Your task to perform on an android device: Open display settings Image 0: 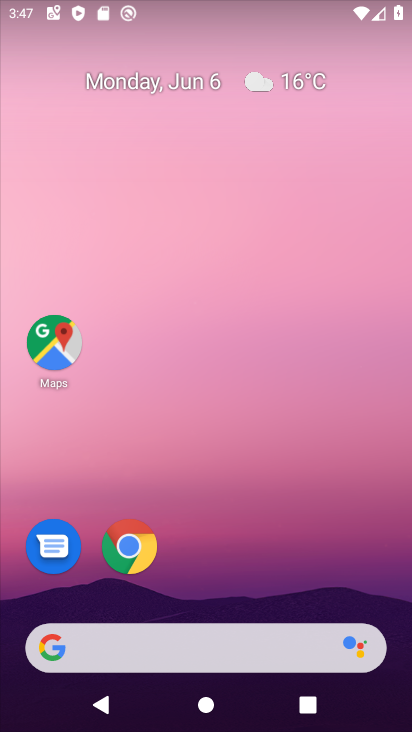
Step 0: drag from (285, 549) to (385, 52)
Your task to perform on an android device: Open display settings Image 1: 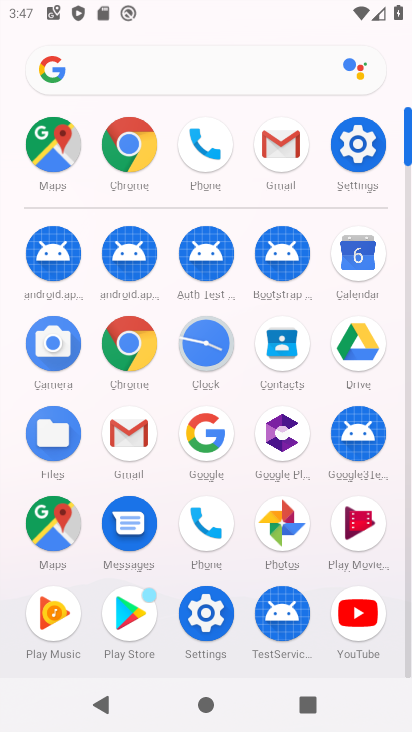
Step 1: click (350, 149)
Your task to perform on an android device: Open display settings Image 2: 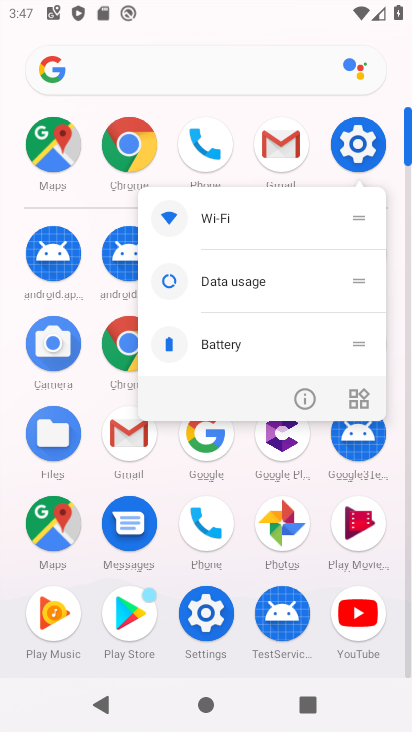
Step 2: click (351, 149)
Your task to perform on an android device: Open display settings Image 3: 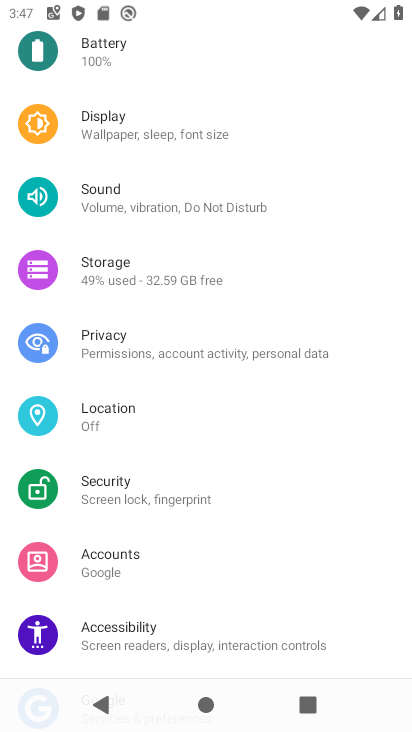
Step 3: click (175, 145)
Your task to perform on an android device: Open display settings Image 4: 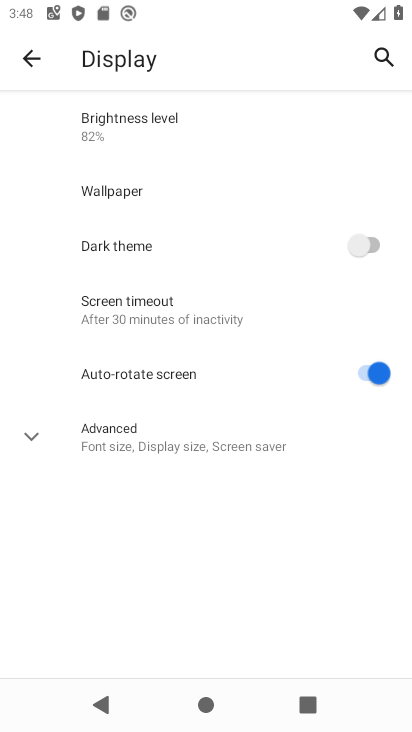
Step 4: task complete